Your task to perform on an android device: Show the shopping cart on amazon.com. Add razer kraken to the cart on amazon.com, then select checkout. Image 0: 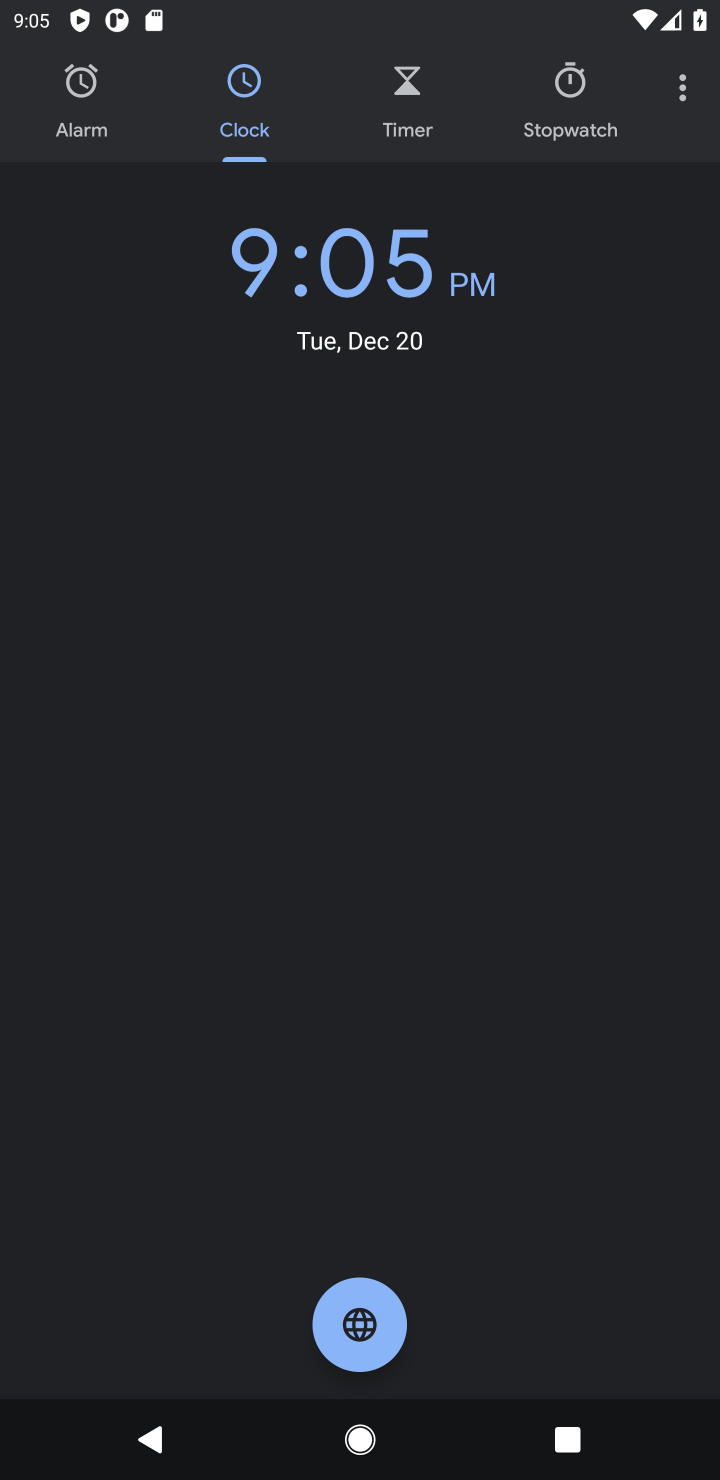
Step 0: press home button
Your task to perform on an android device: Show the shopping cart on amazon.com. Add razer kraken to the cart on amazon.com, then select checkout. Image 1: 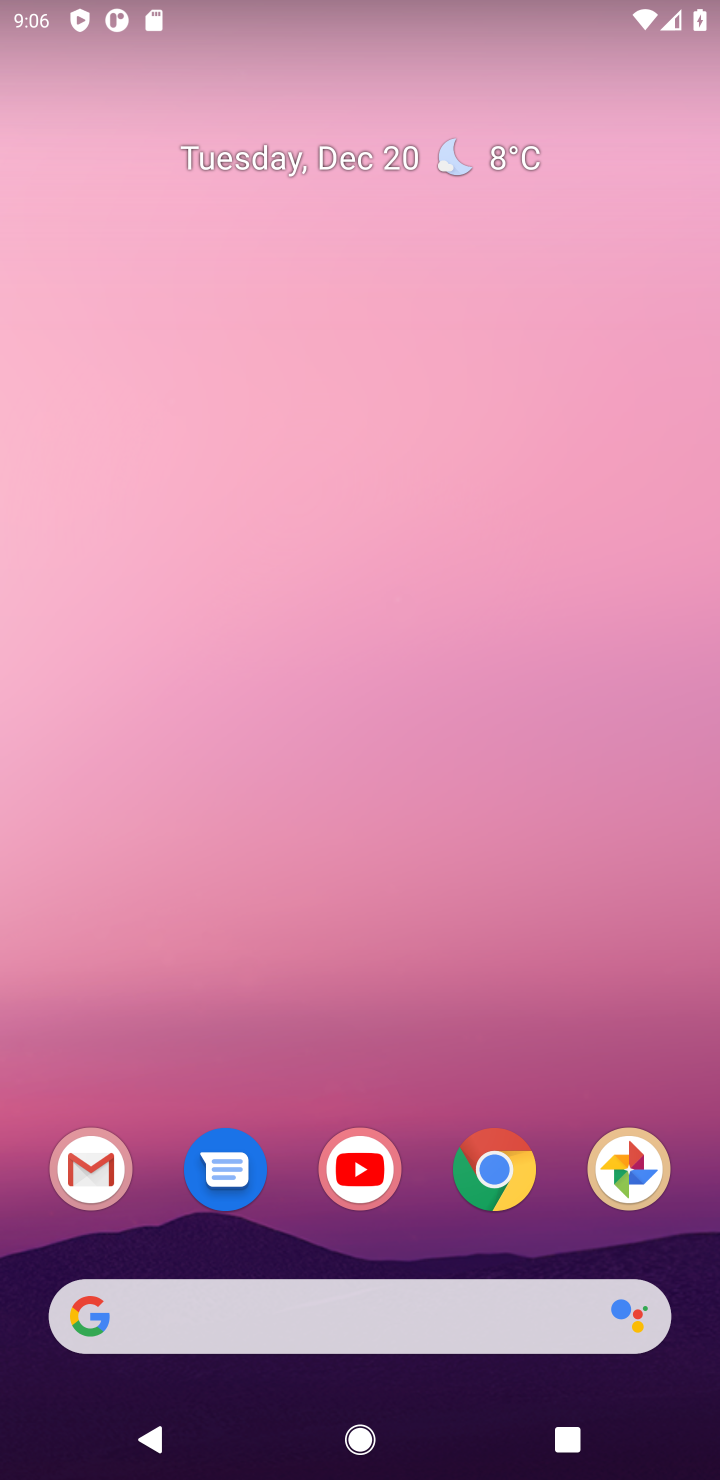
Step 1: click (479, 1186)
Your task to perform on an android device: Show the shopping cart on amazon.com. Add razer kraken to the cart on amazon.com, then select checkout. Image 2: 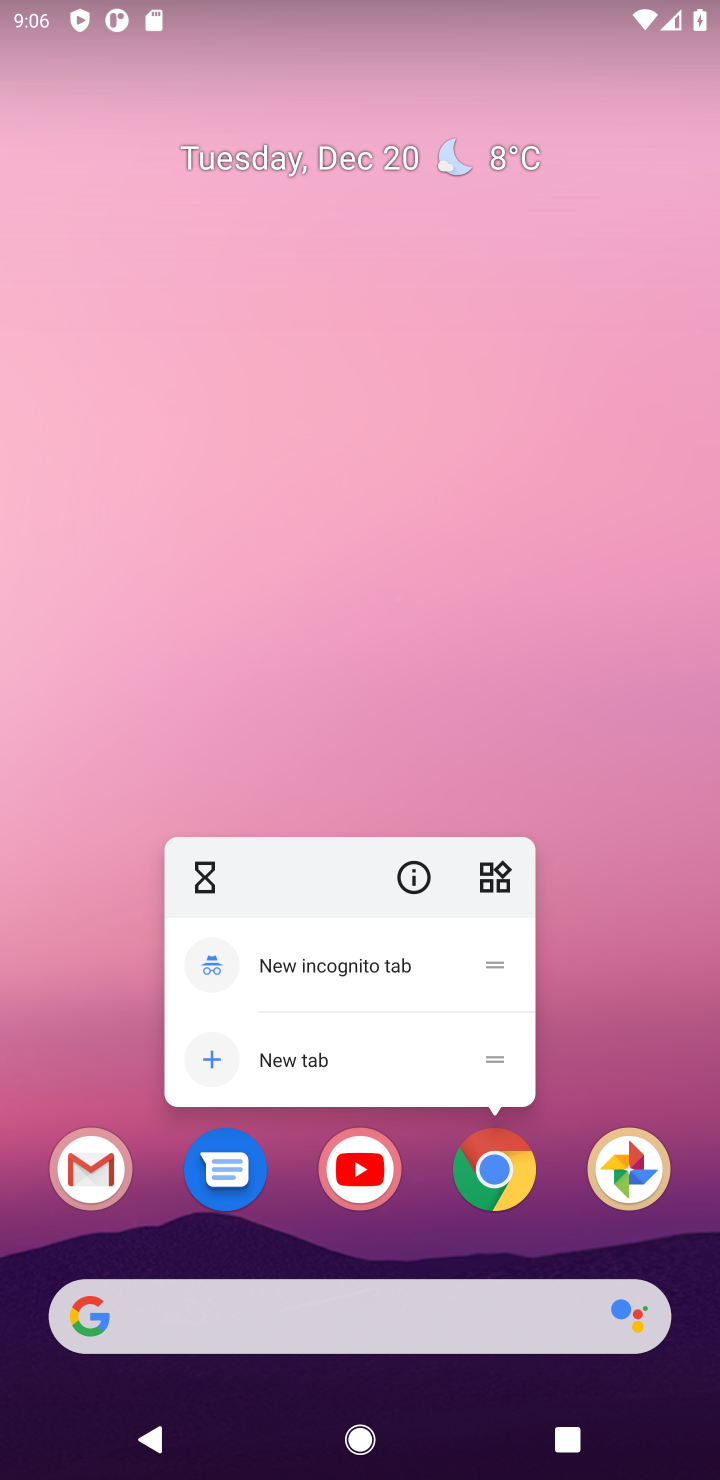
Step 2: click (479, 1186)
Your task to perform on an android device: Show the shopping cart on amazon.com. Add razer kraken to the cart on amazon.com, then select checkout. Image 3: 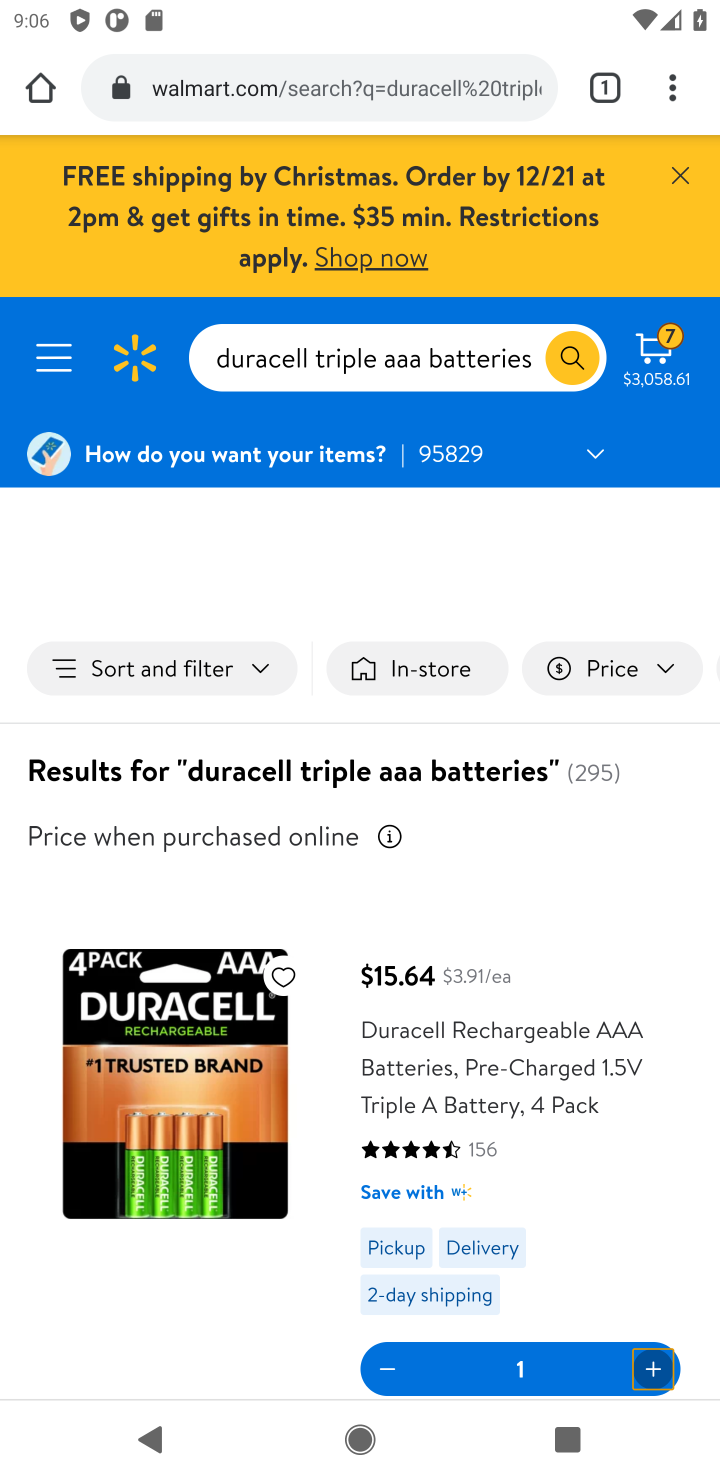
Step 3: click (676, 183)
Your task to perform on an android device: Show the shopping cart on amazon.com. Add razer kraken to the cart on amazon.com, then select checkout. Image 4: 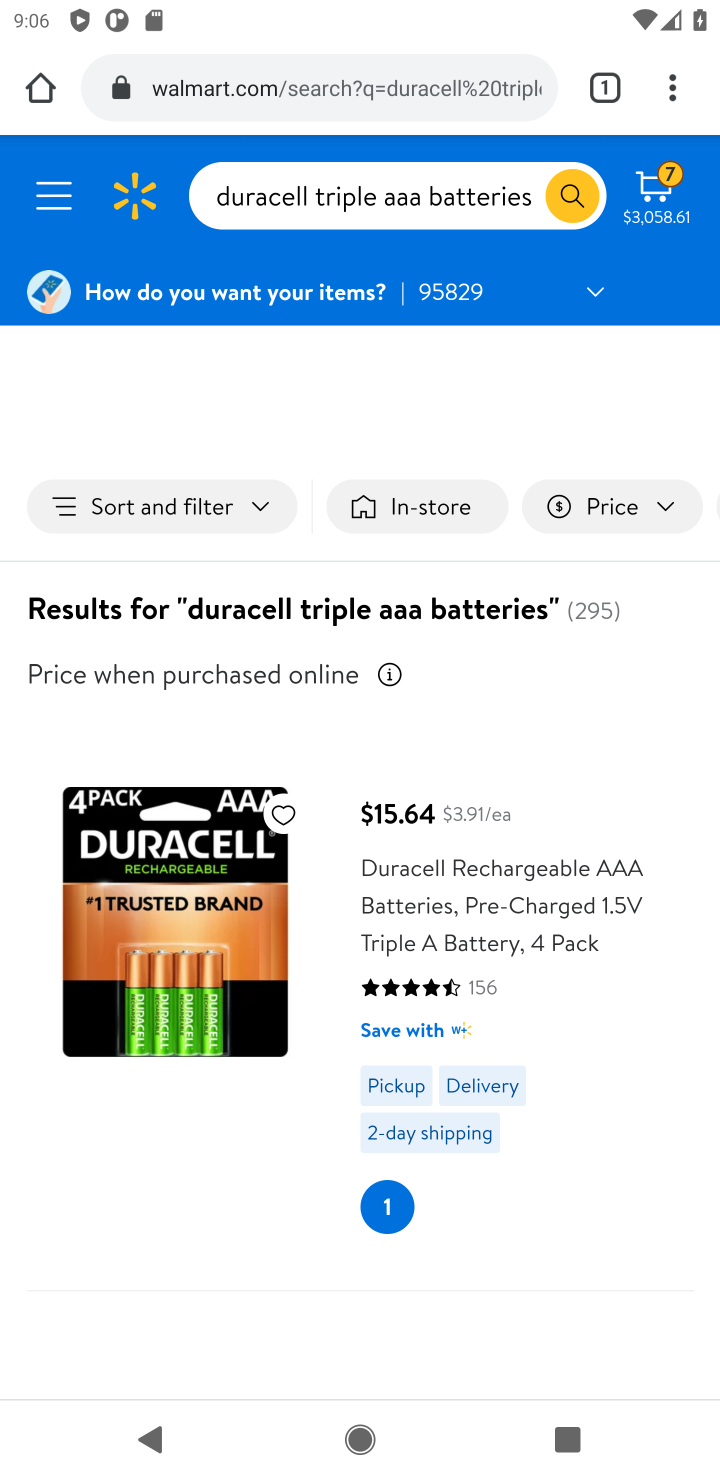
Step 4: click (387, 77)
Your task to perform on an android device: Show the shopping cart on amazon.com. Add razer kraken to the cart on amazon.com, then select checkout. Image 5: 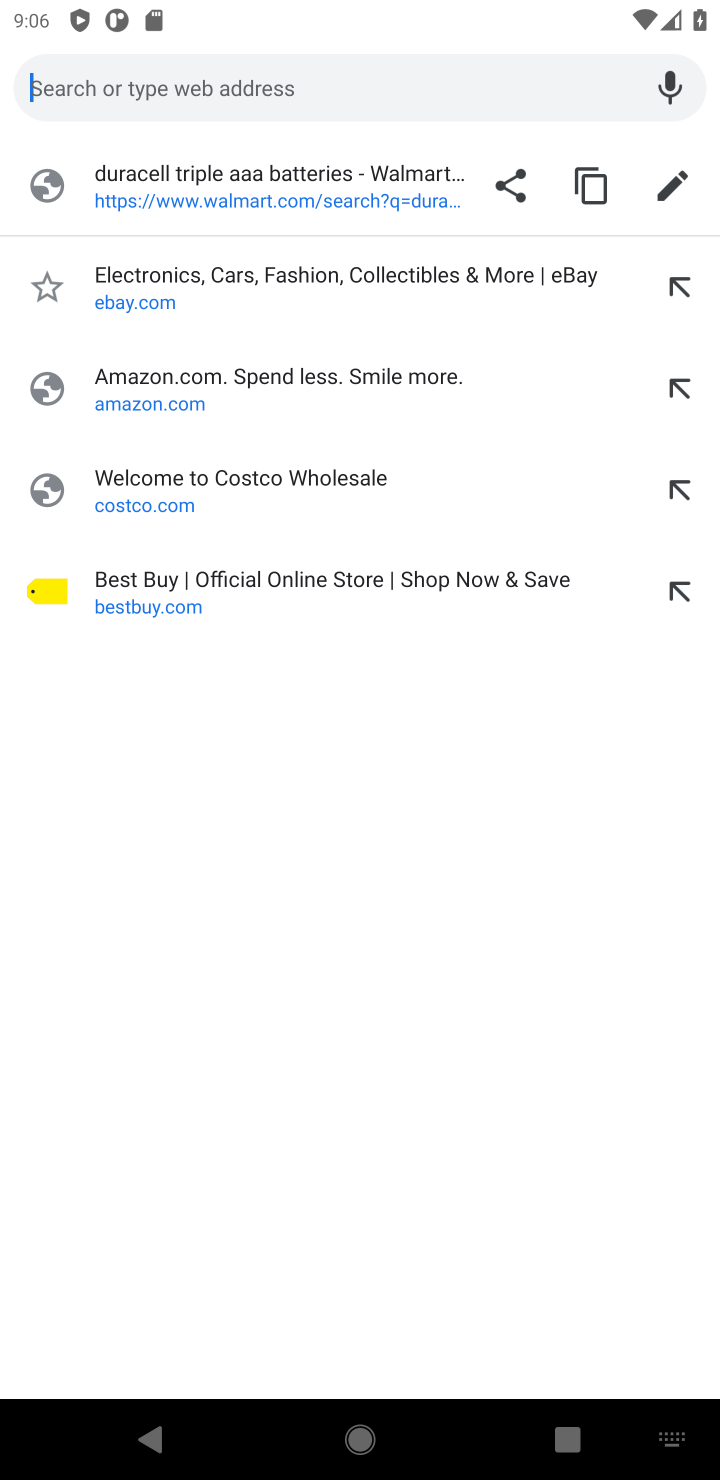
Step 5: type "amazon "
Your task to perform on an android device: Show the shopping cart on amazon.com. Add razer kraken to the cart on amazon.com, then select checkout. Image 6: 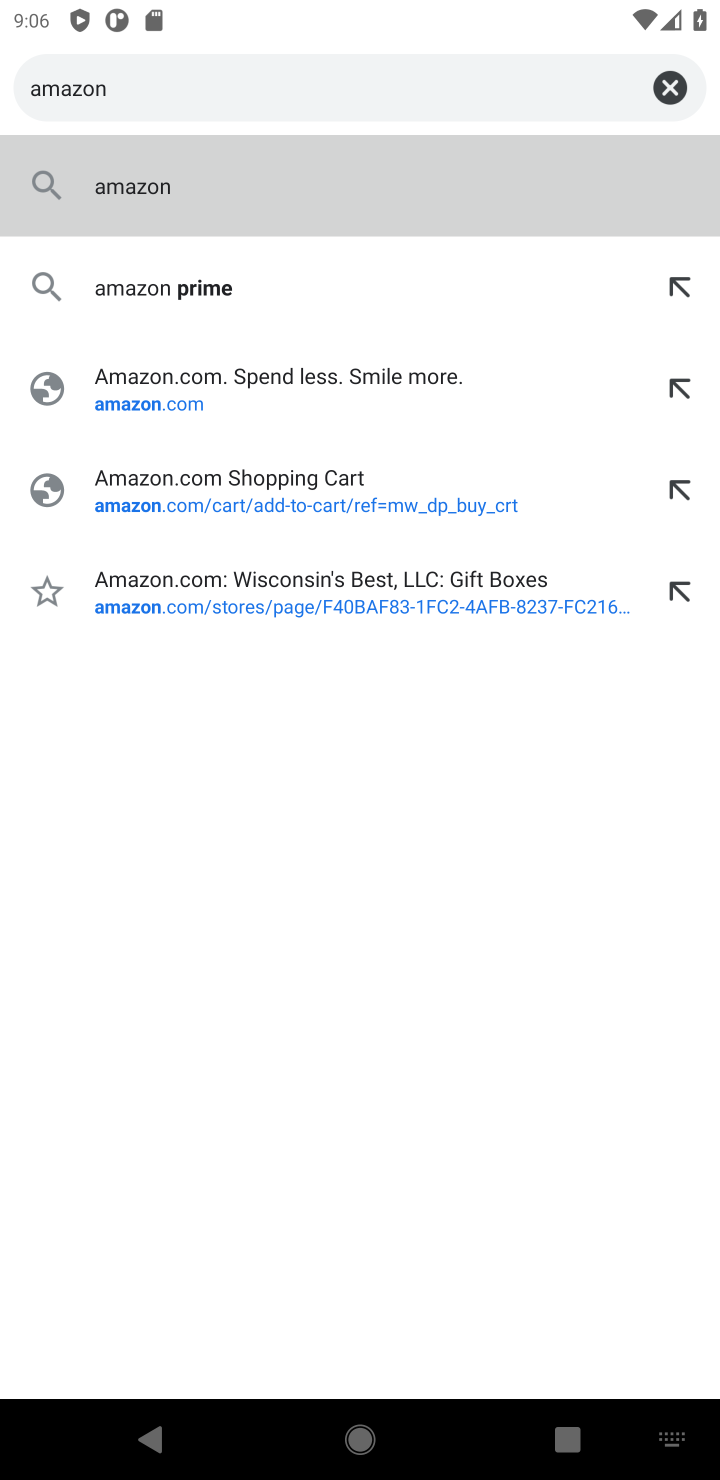
Step 6: click (225, 376)
Your task to perform on an android device: Show the shopping cart on amazon.com. Add razer kraken to the cart on amazon.com, then select checkout. Image 7: 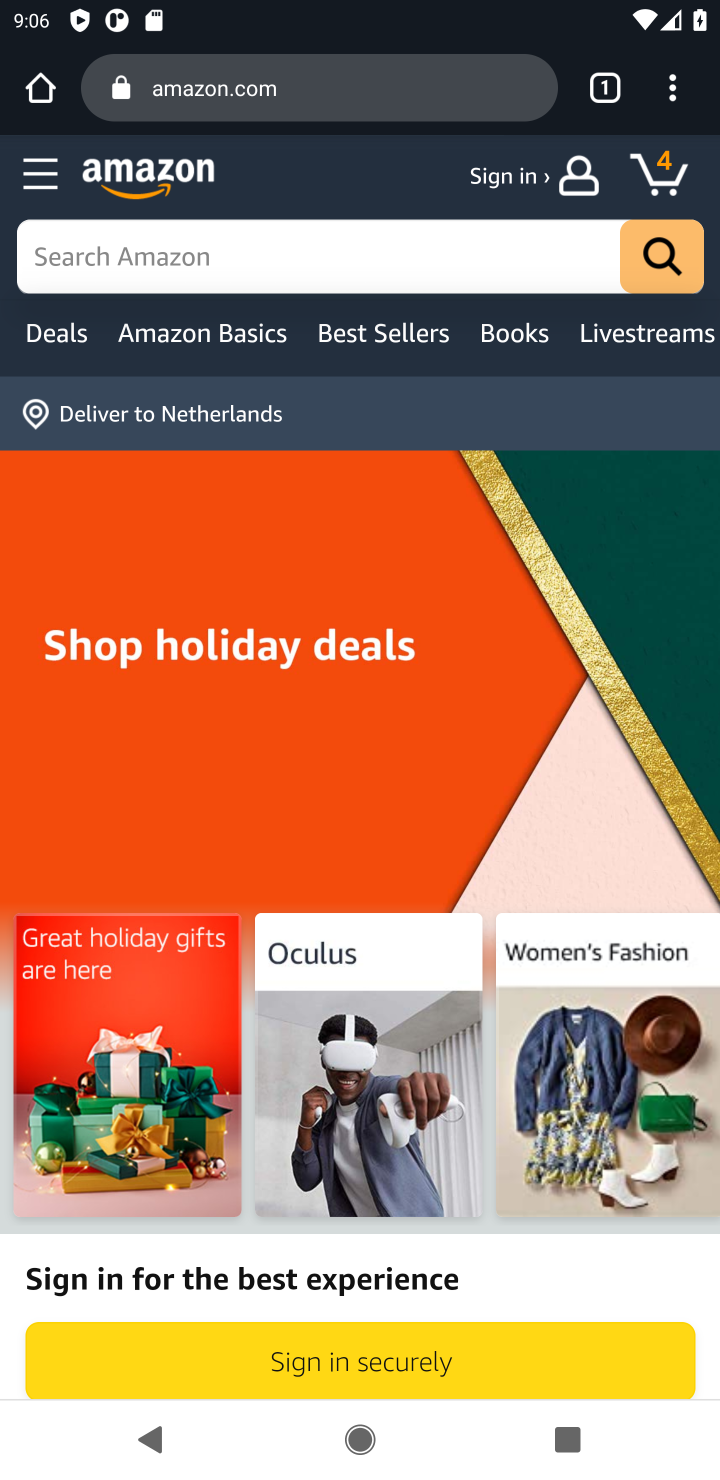
Step 7: click (346, 279)
Your task to perform on an android device: Show the shopping cart on amazon.com. Add razer kraken to the cart on amazon.com, then select checkout. Image 8: 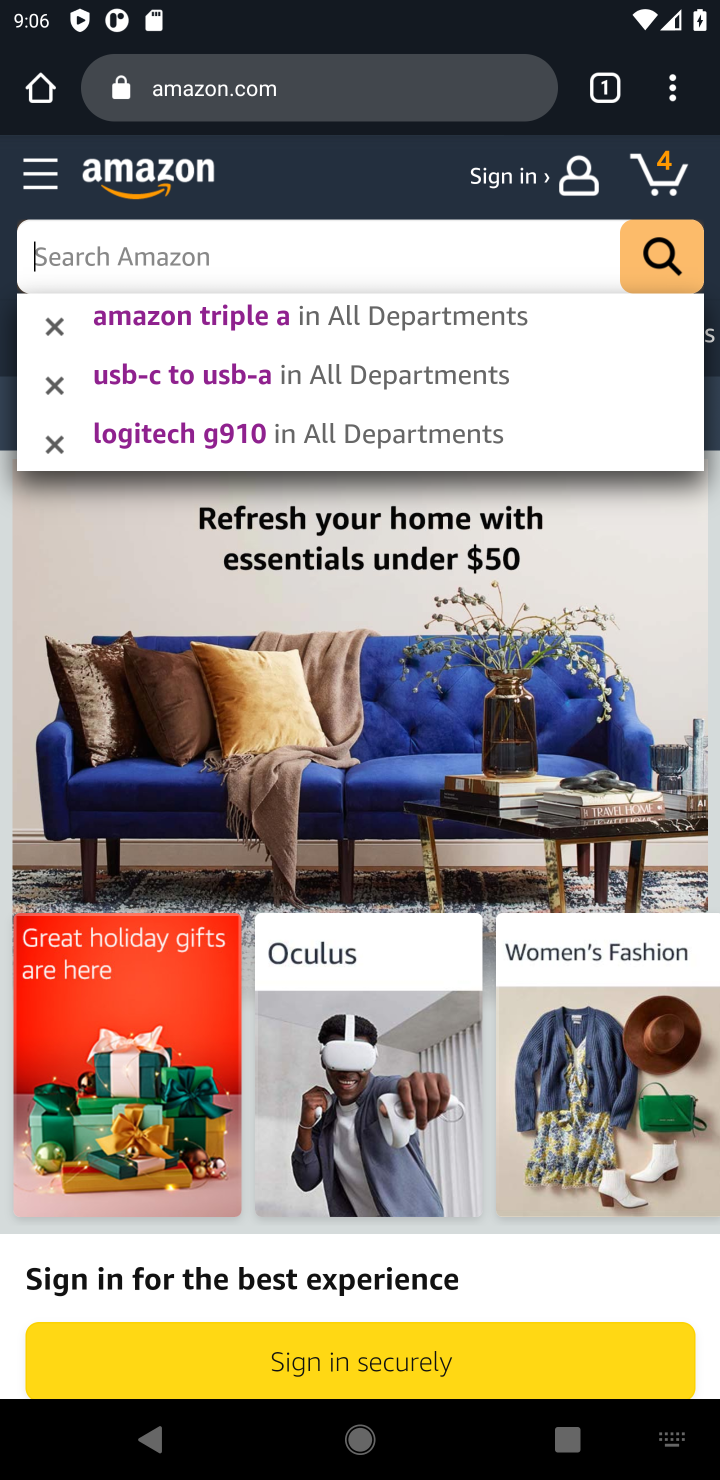
Step 8: type "razer karken"
Your task to perform on an android device: Show the shopping cart on amazon.com. Add razer kraken to the cart on amazon.com, then select checkout. Image 9: 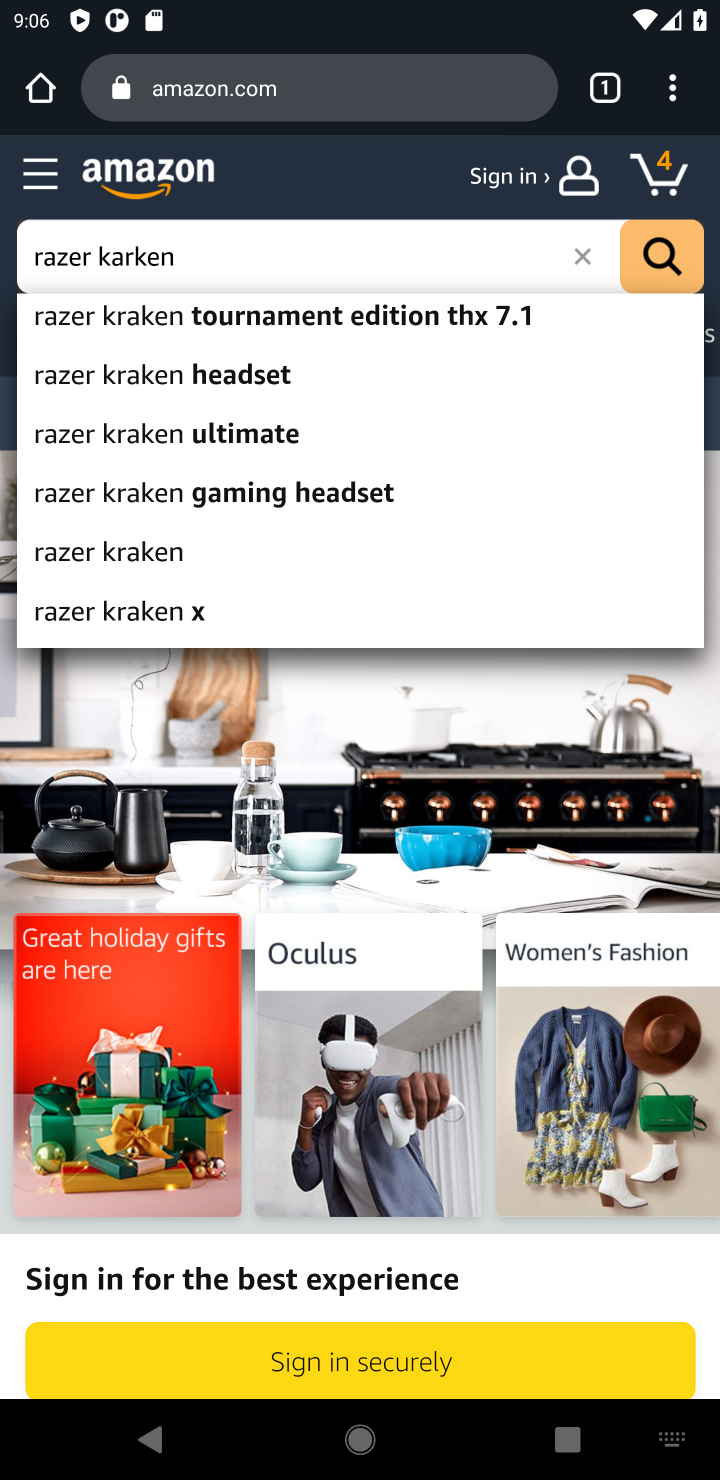
Step 9: click (665, 262)
Your task to perform on an android device: Show the shopping cart on amazon.com. Add razer kraken to the cart on amazon.com, then select checkout. Image 10: 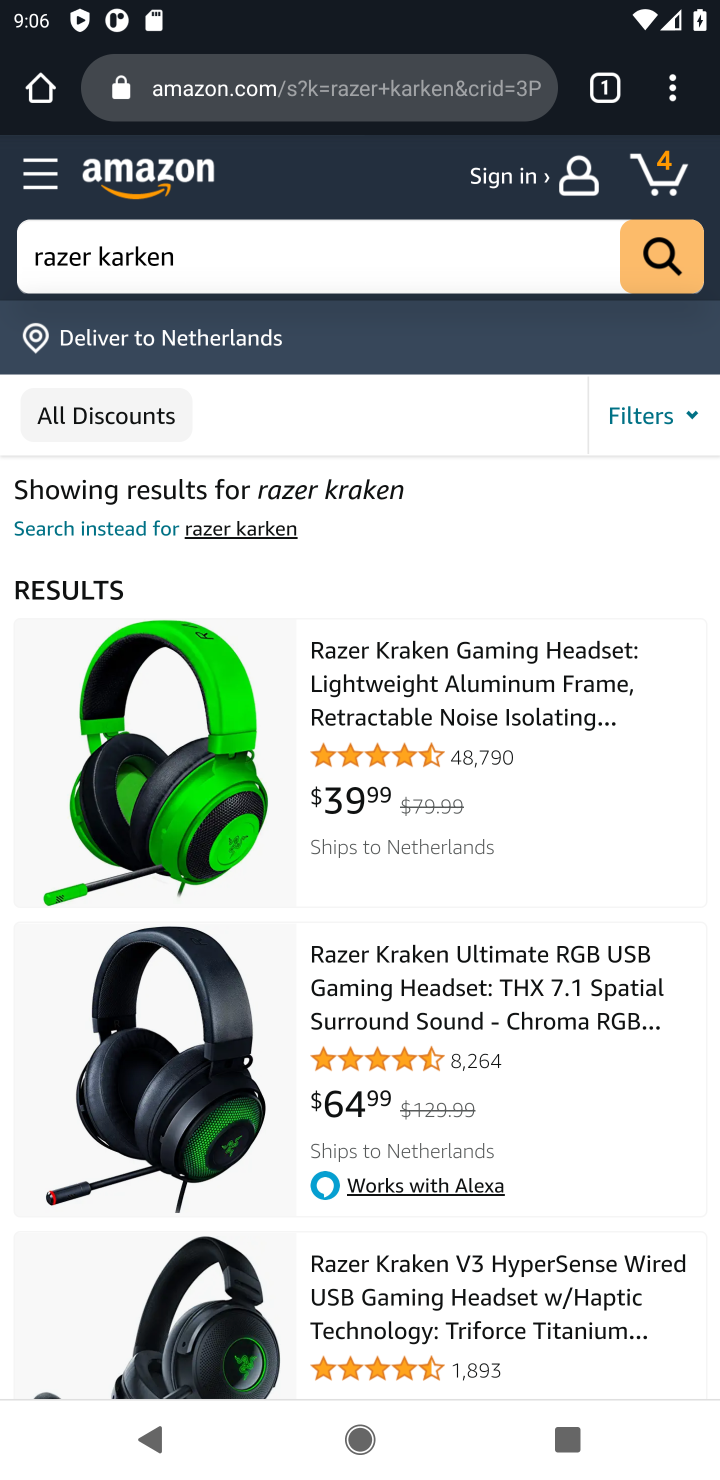
Step 10: click (335, 708)
Your task to perform on an android device: Show the shopping cart on amazon.com. Add razer kraken to the cart on amazon.com, then select checkout. Image 11: 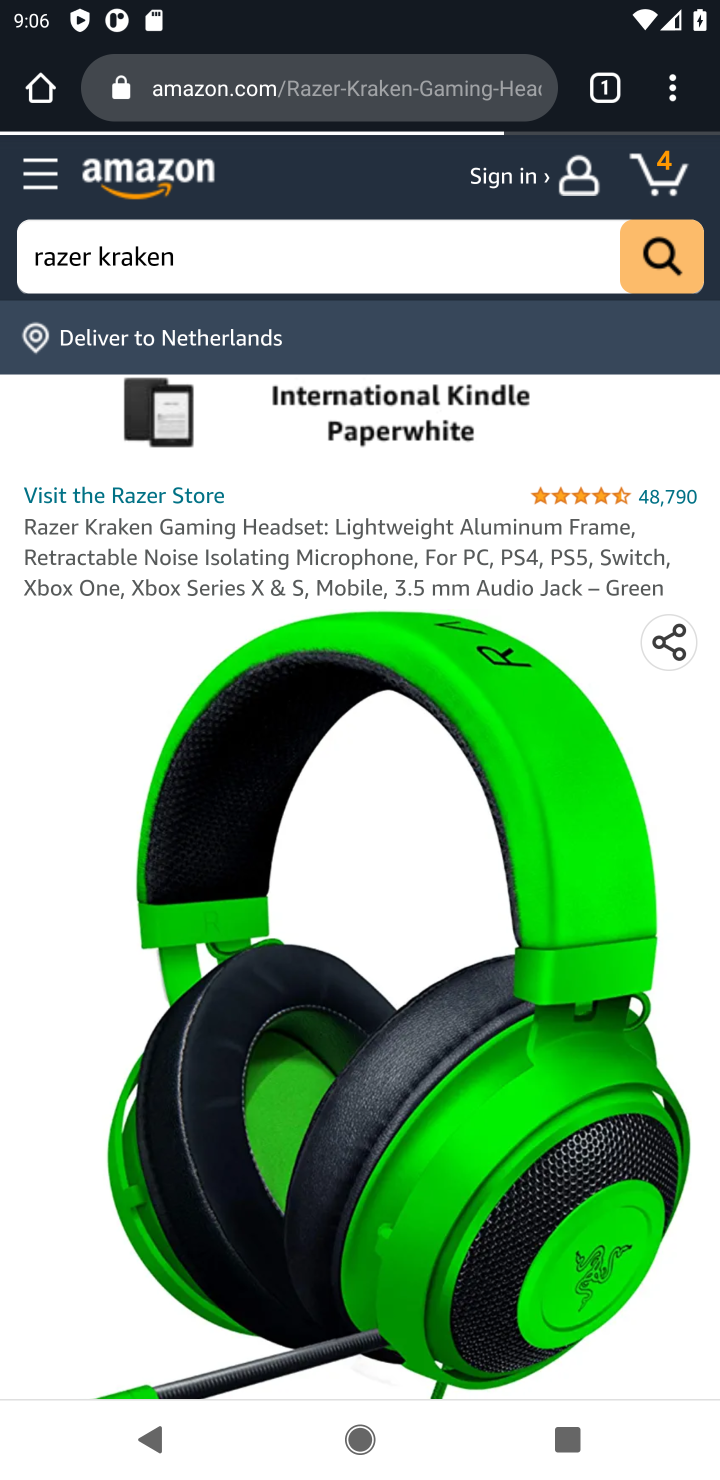
Step 11: drag from (417, 1139) to (494, 468)
Your task to perform on an android device: Show the shopping cart on amazon.com. Add razer kraken to the cart on amazon.com, then select checkout. Image 12: 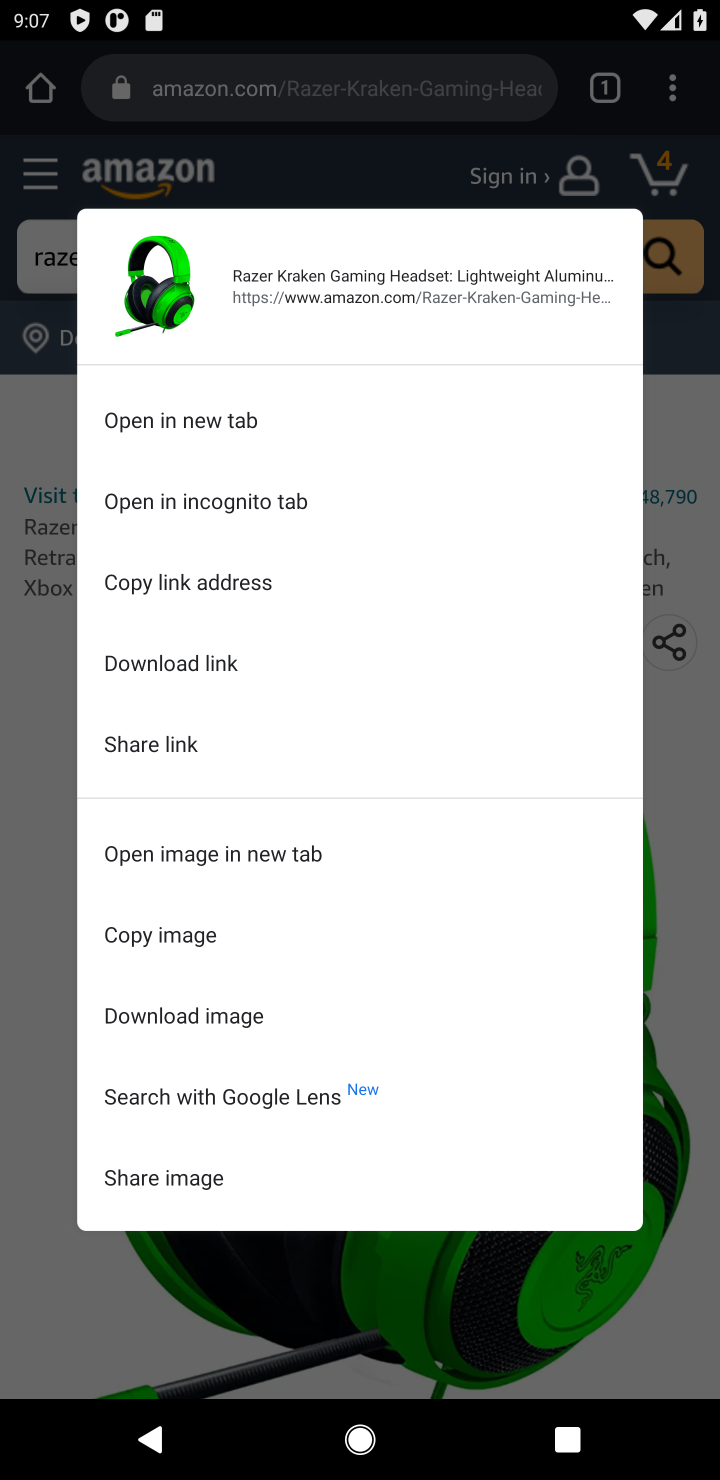
Step 12: click (588, 1300)
Your task to perform on an android device: Show the shopping cart on amazon.com. Add razer kraken to the cart on amazon.com, then select checkout. Image 13: 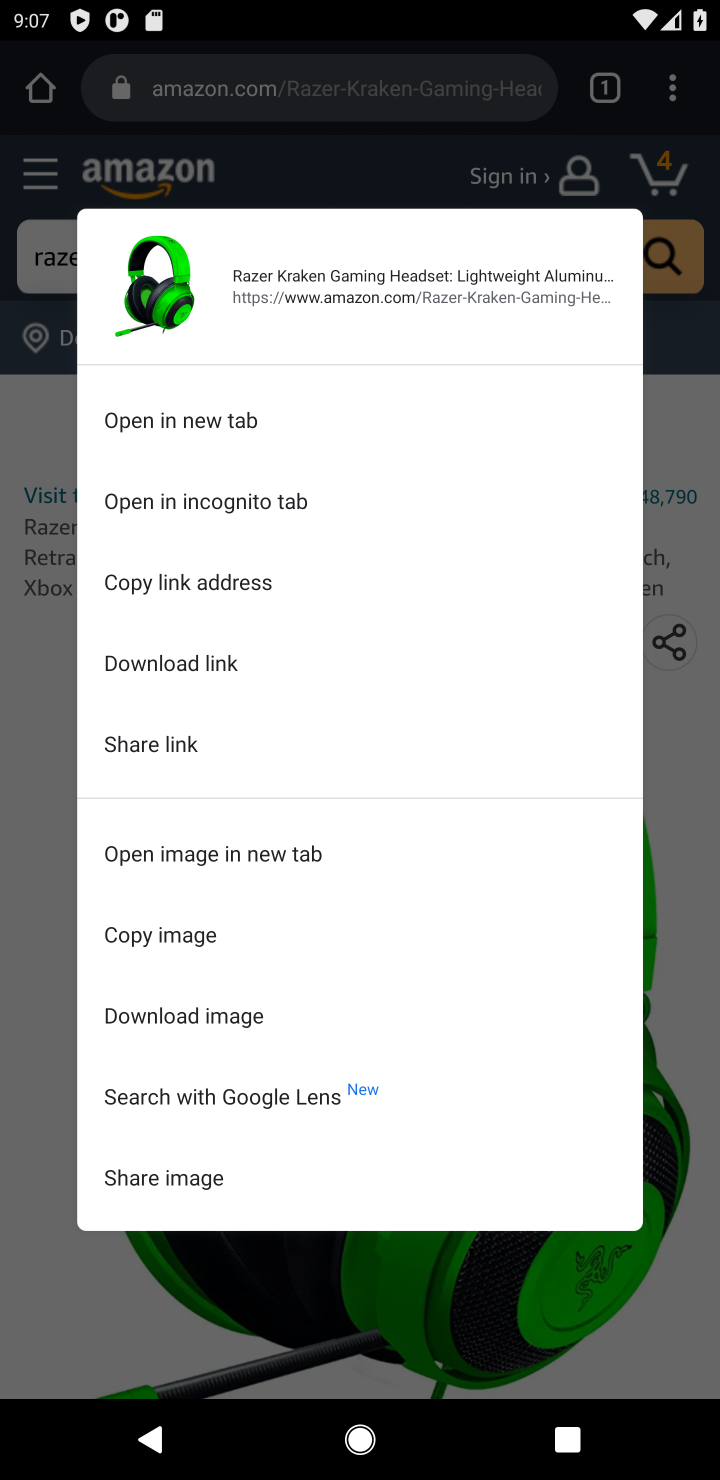
Step 13: drag from (588, 1300) to (528, 590)
Your task to perform on an android device: Show the shopping cart on amazon.com. Add razer kraken to the cart on amazon.com, then select checkout. Image 14: 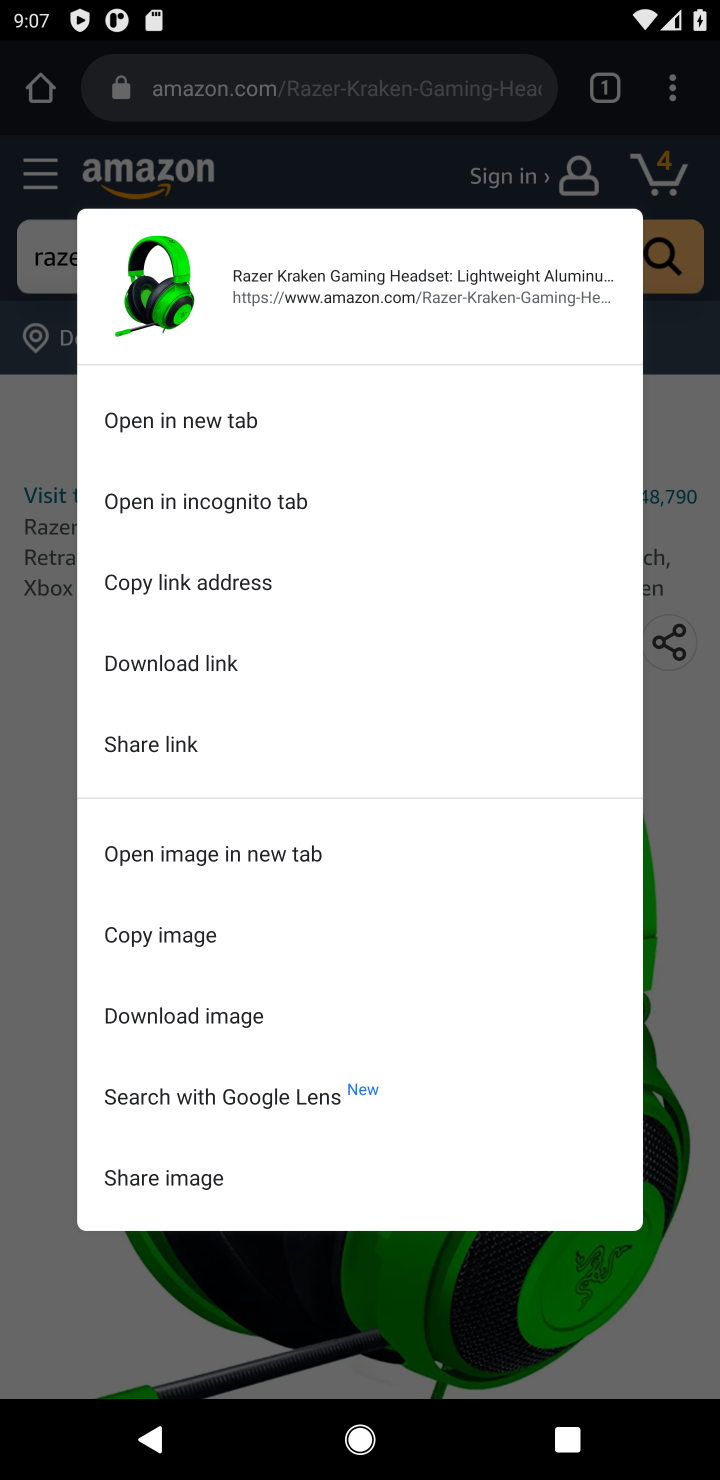
Step 14: click (628, 1314)
Your task to perform on an android device: Show the shopping cart on amazon.com. Add razer kraken to the cart on amazon.com, then select checkout. Image 15: 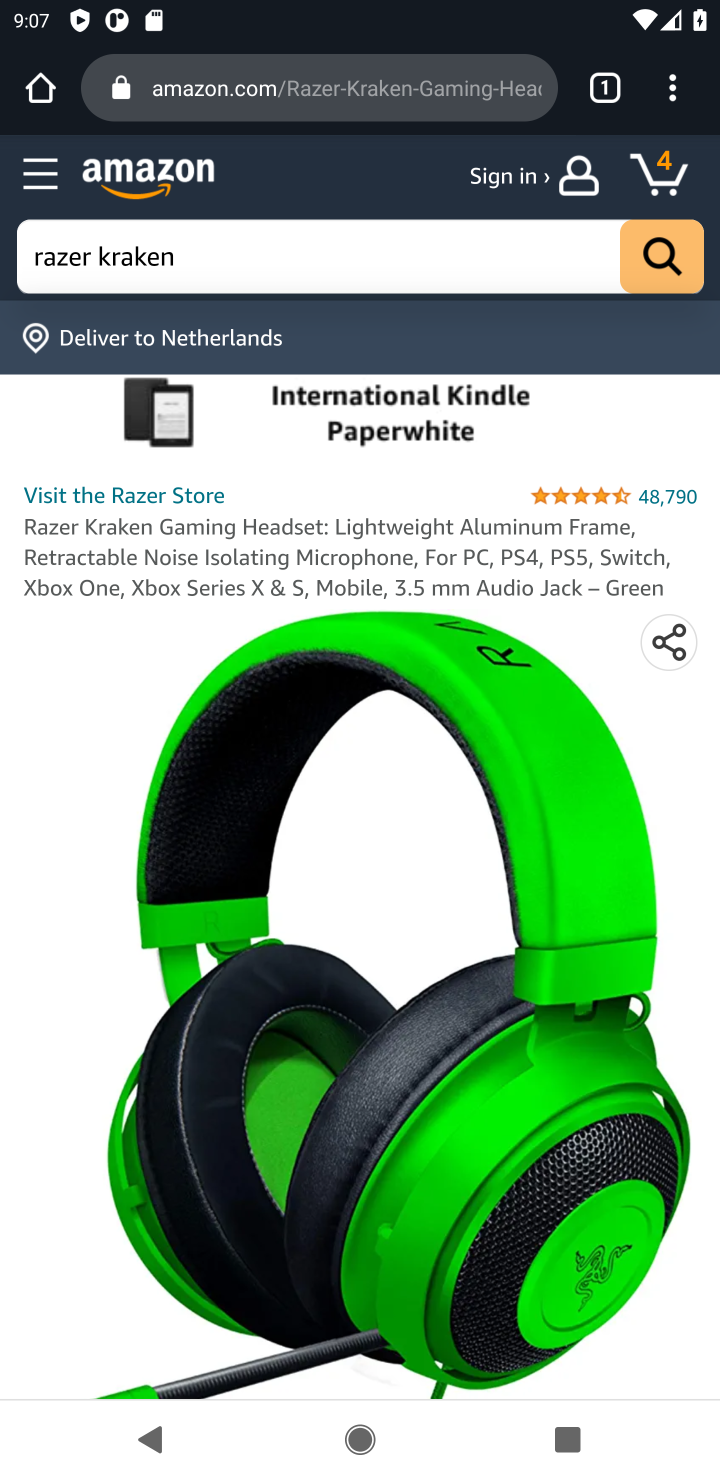
Step 15: task complete